Your task to perform on an android device: turn off data saver in the chrome app Image 0: 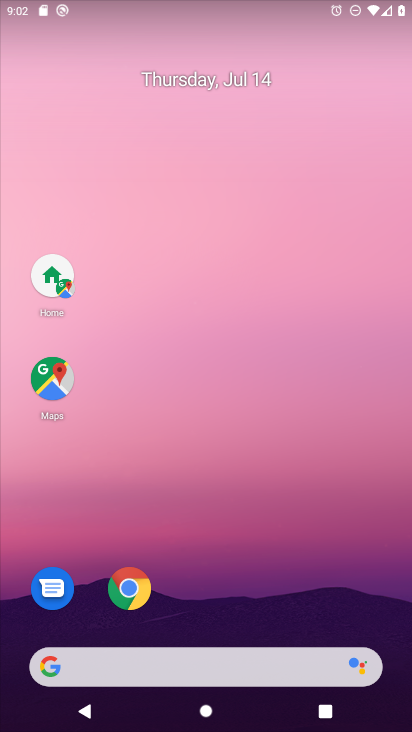
Step 0: click (129, 588)
Your task to perform on an android device: turn off data saver in the chrome app Image 1: 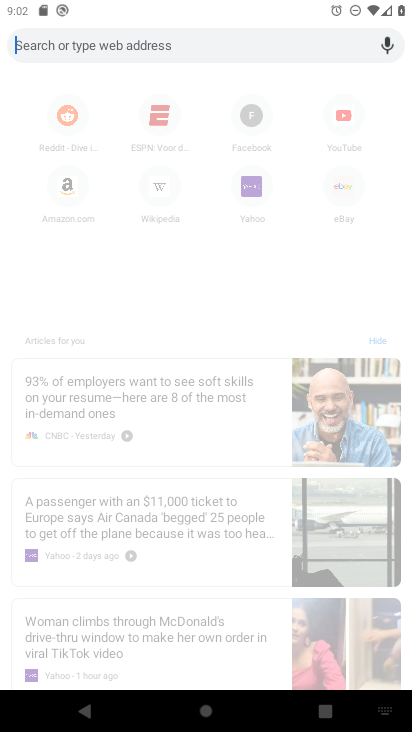
Step 1: click (57, 36)
Your task to perform on an android device: turn off data saver in the chrome app Image 2: 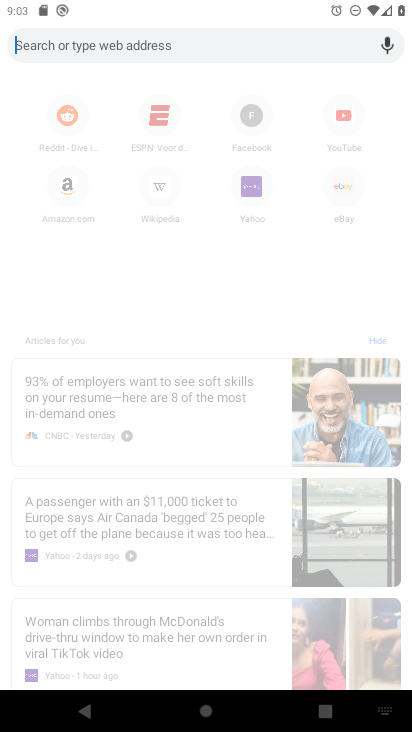
Step 2: task complete